Your task to perform on an android device: move an email to a new category in the gmail app Image 0: 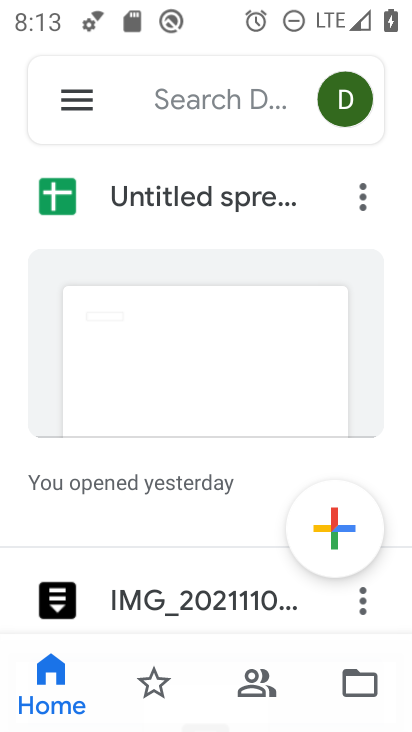
Step 0: press home button
Your task to perform on an android device: move an email to a new category in the gmail app Image 1: 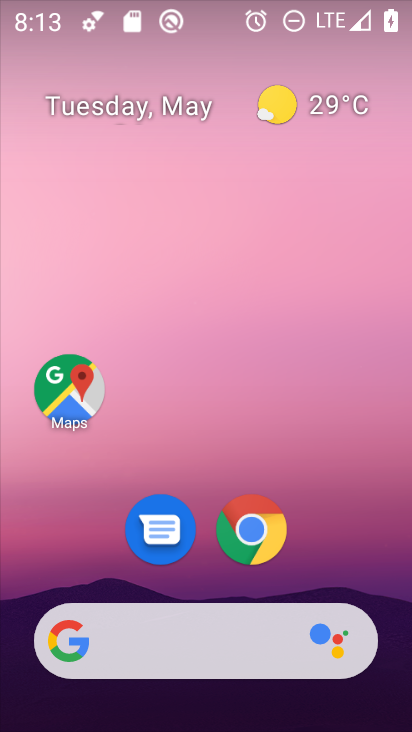
Step 1: drag from (394, 628) to (236, 83)
Your task to perform on an android device: move an email to a new category in the gmail app Image 2: 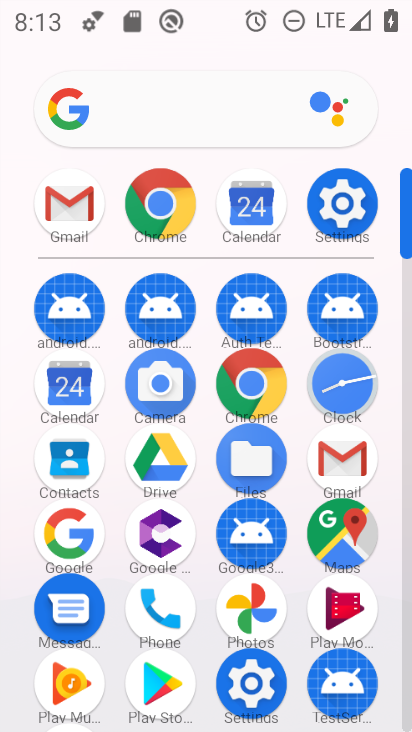
Step 2: click (335, 449)
Your task to perform on an android device: move an email to a new category in the gmail app Image 3: 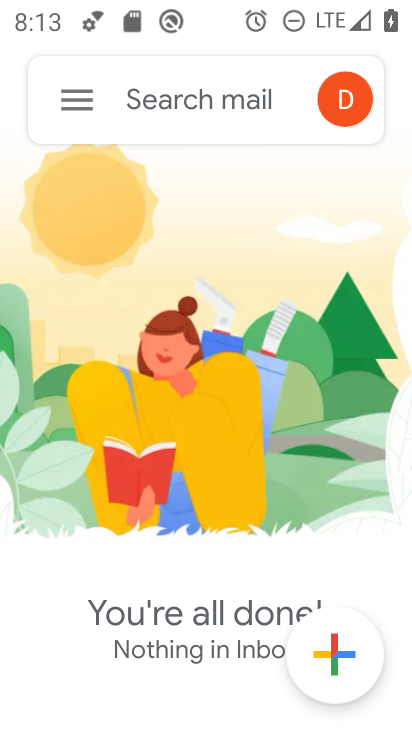
Step 3: task complete